Your task to perform on an android device: choose inbox layout in the gmail app Image 0: 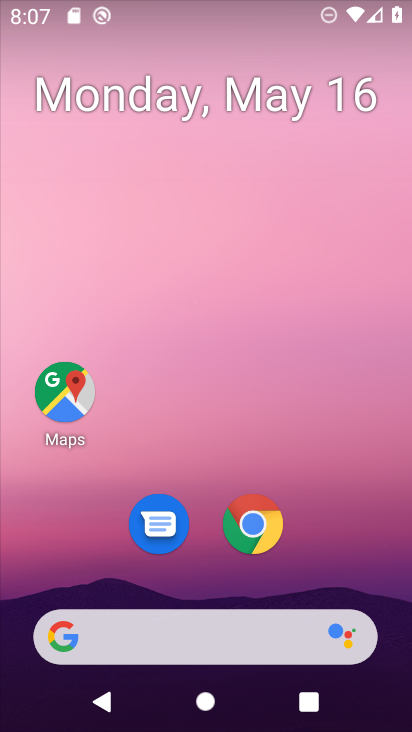
Step 0: drag from (331, 495) to (286, 34)
Your task to perform on an android device: choose inbox layout in the gmail app Image 1: 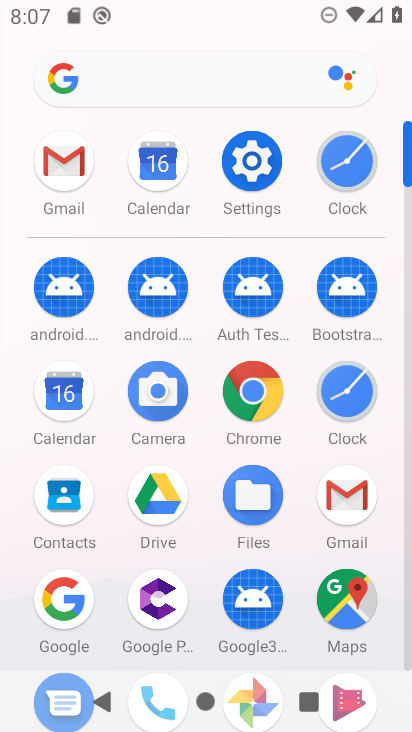
Step 1: click (76, 152)
Your task to perform on an android device: choose inbox layout in the gmail app Image 2: 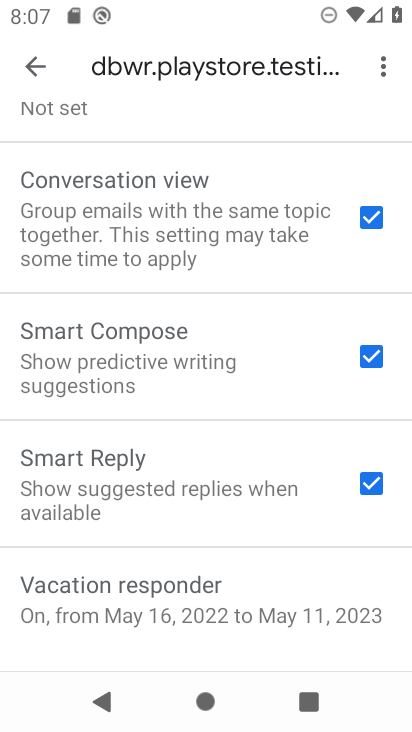
Step 2: drag from (158, 227) to (195, 514)
Your task to perform on an android device: choose inbox layout in the gmail app Image 3: 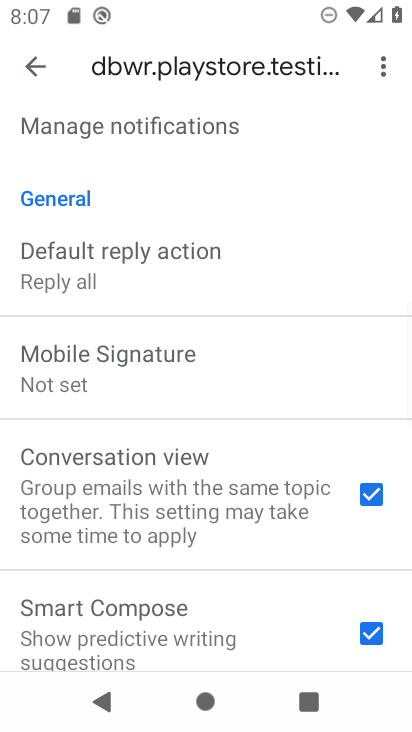
Step 3: drag from (194, 227) to (167, 480)
Your task to perform on an android device: choose inbox layout in the gmail app Image 4: 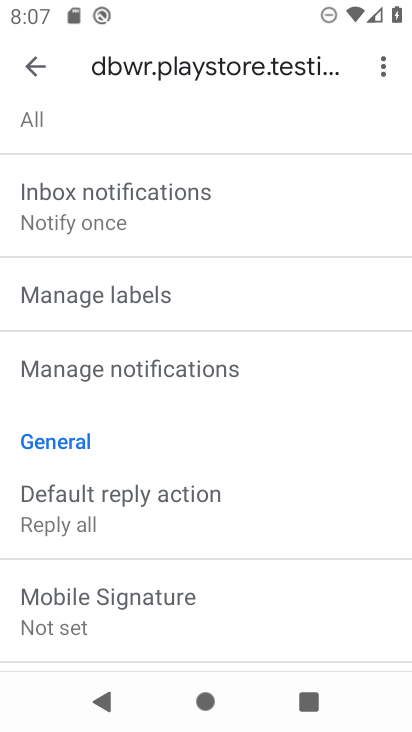
Step 4: drag from (136, 167) to (157, 471)
Your task to perform on an android device: choose inbox layout in the gmail app Image 5: 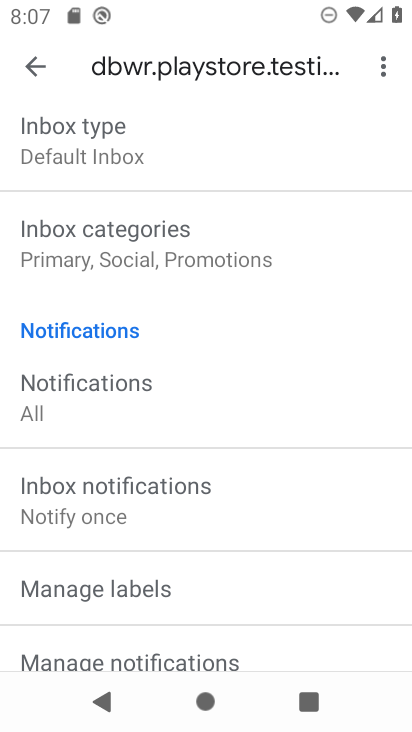
Step 5: click (132, 142)
Your task to perform on an android device: choose inbox layout in the gmail app Image 6: 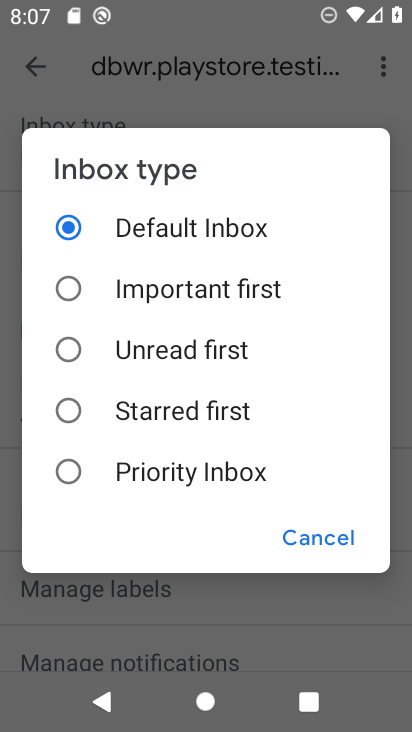
Step 6: click (71, 282)
Your task to perform on an android device: choose inbox layout in the gmail app Image 7: 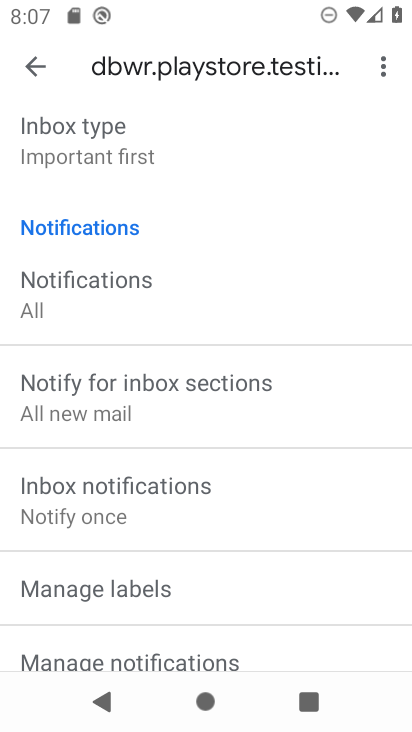
Step 7: task complete